Your task to perform on an android device: move a message to another label in the gmail app Image 0: 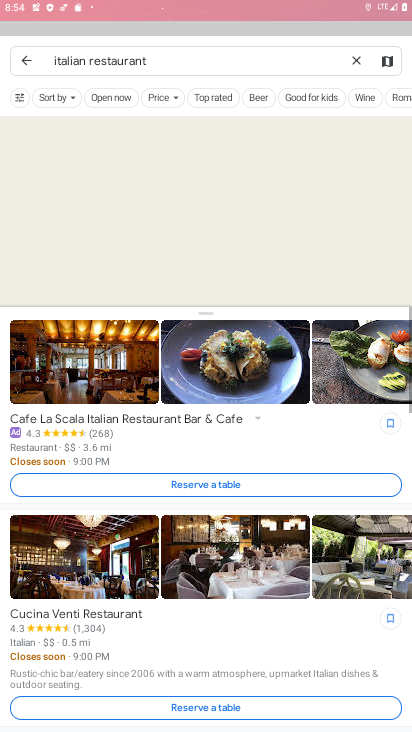
Step 0: click (201, 210)
Your task to perform on an android device: move a message to another label in the gmail app Image 1: 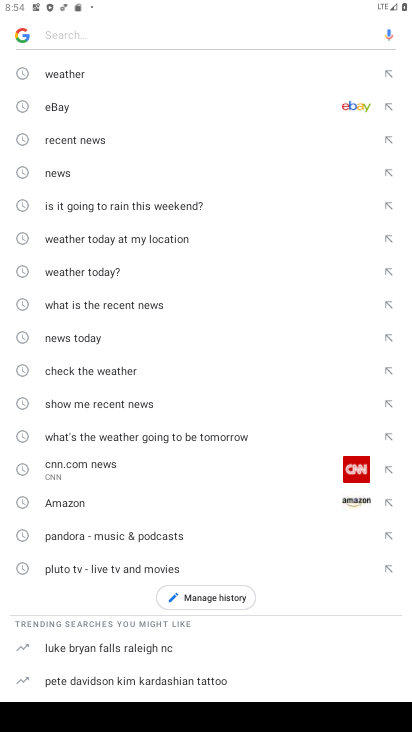
Step 1: press home button
Your task to perform on an android device: move a message to another label in the gmail app Image 2: 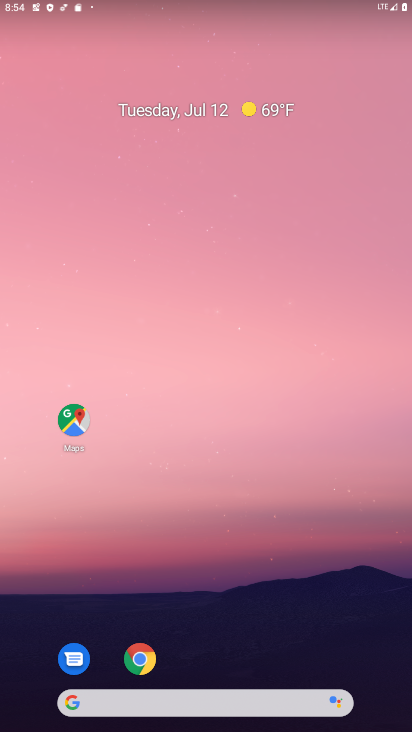
Step 2: drag from (211, 720) to (211, 197)
Your task to perform on an android device: move a message to another label in the gmail app Image 3: 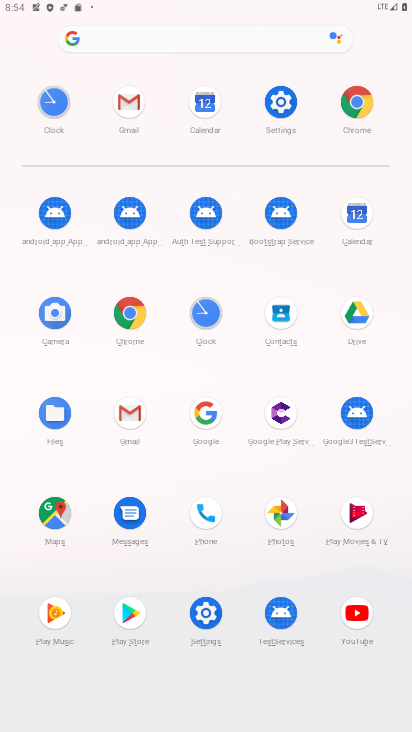
Step 3: click (135, 416)
Your task to perform on an android device: move a message to another label in the gmail app Image 4: 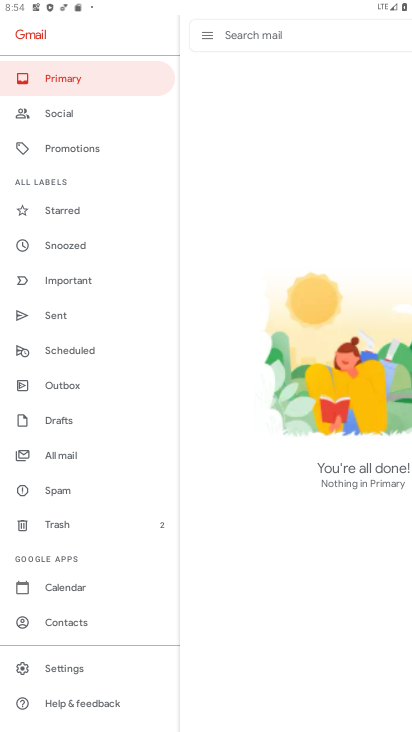
Step 4: click (71, 78)
Your task to perform on an android device: move a message to another label in the gmail app Image 5: 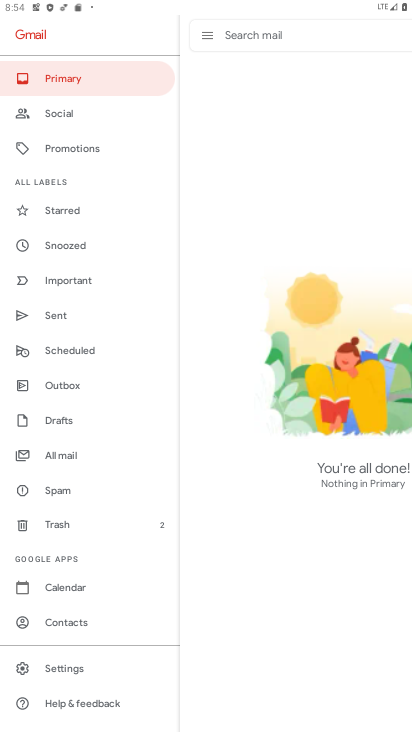
Step 5: drag from (71, 269) to (75, 303)
Your task to perform on an android device: move a message to another label in the gmail app Image 6: 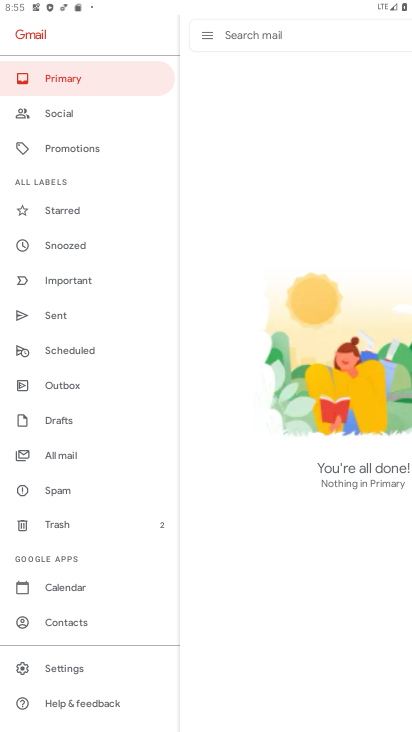
Step 6: click (107, 77)
Your task to perform on an android device: move a message to another label in the gmail app Image 7: 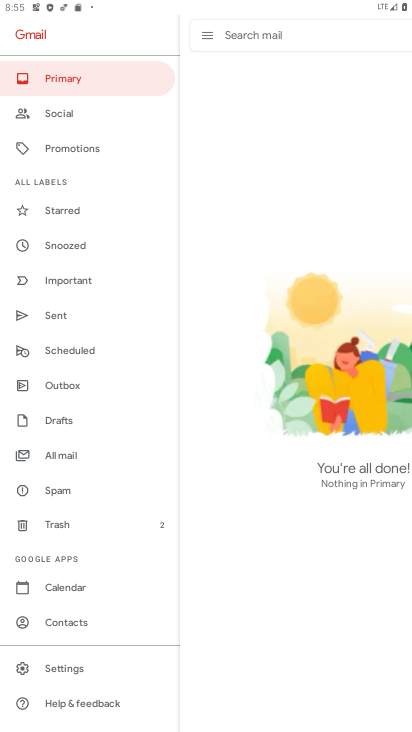
Step 7: task complete